Your task to perform on an android device: open chrome privacy settings Image 0: 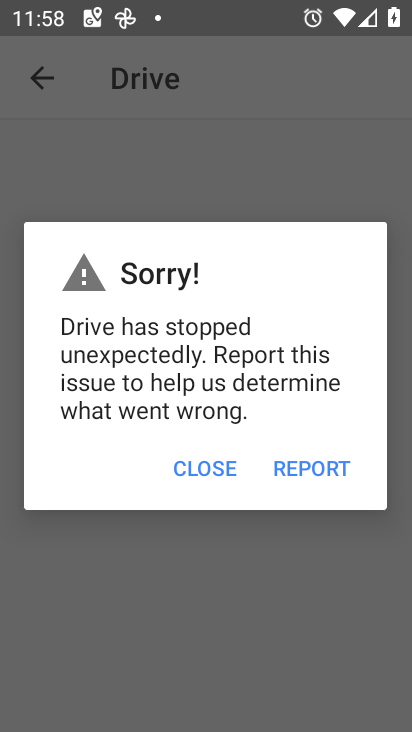
Step 0: press home button
Your task to perform on an android device: open chrome privacy settings Image 1: 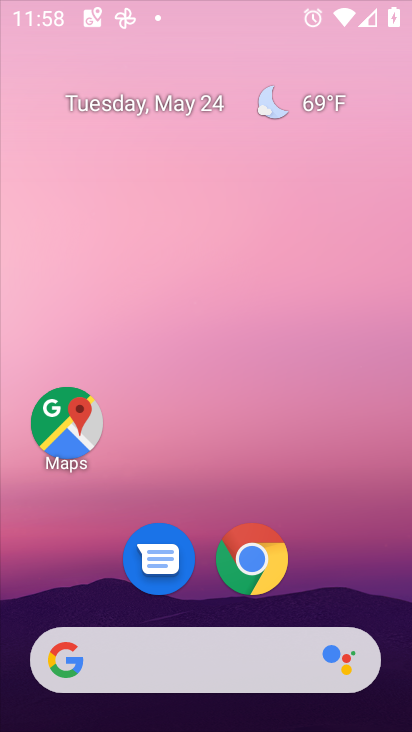
Step 1: drag from (393, 658) to (274, 189)
Your task to perform on an android device: open chrome privacy settings Image 2: 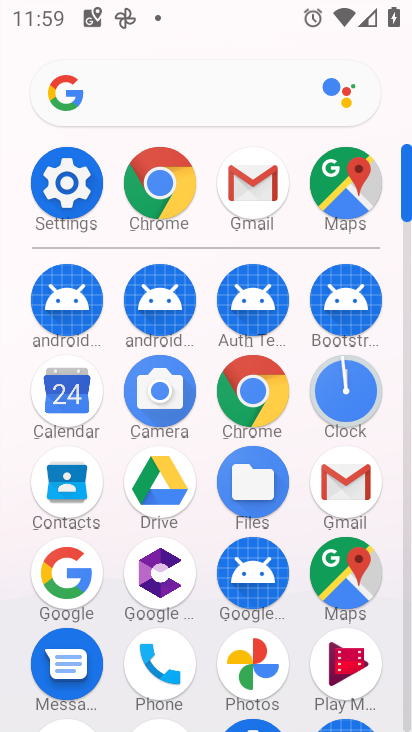
Step 2: click (250, 399)
Your task to perform on an android device: open chrome privacy settings Image 3: 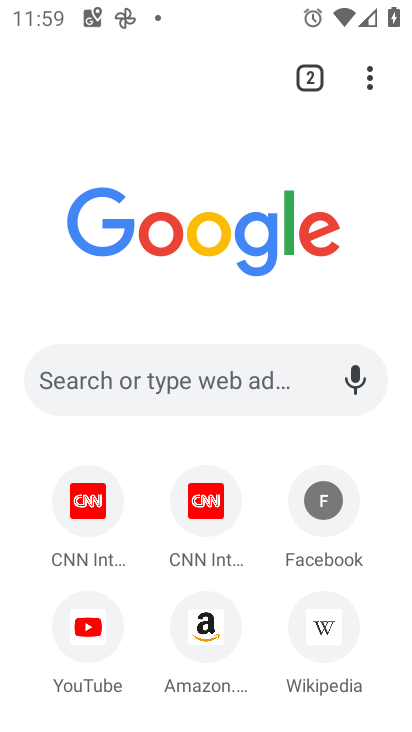
Step 3: click (374, 63)
Your task to perform on an android device: open chrome privacy settings Image 4: 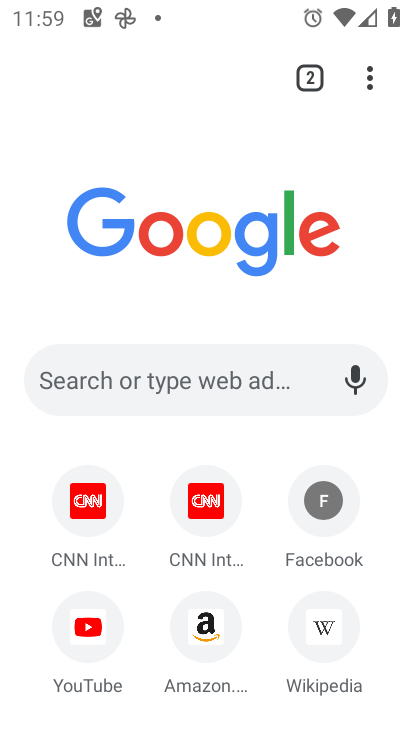
Step 4: click (373, 66)
Your task to perform on an android device: open chrome privacy settings Image 5: 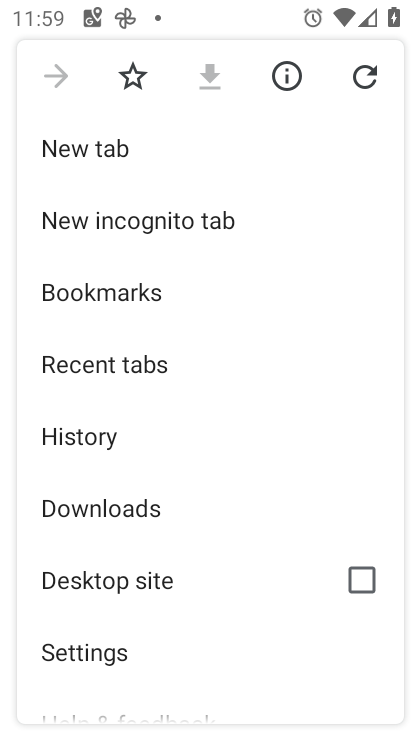
Step 5: drag from (145, 676) to (198, 254)
Your task to perform on an android device: open chrome privacy settings Image 6: 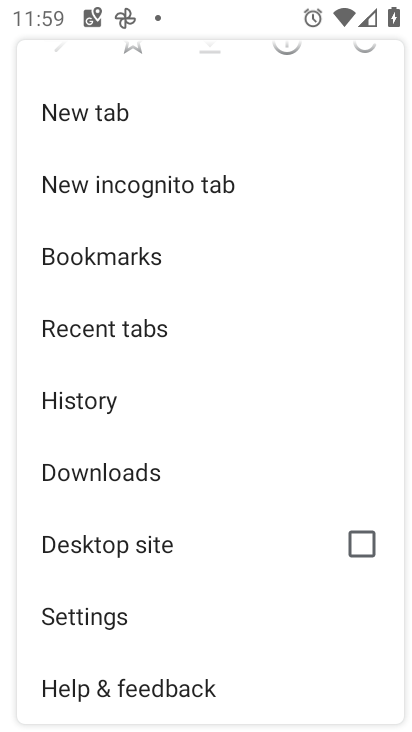
Step 6: click (118, 609)
Your task to perform on an android device: open chrome privacy settings Image 7: 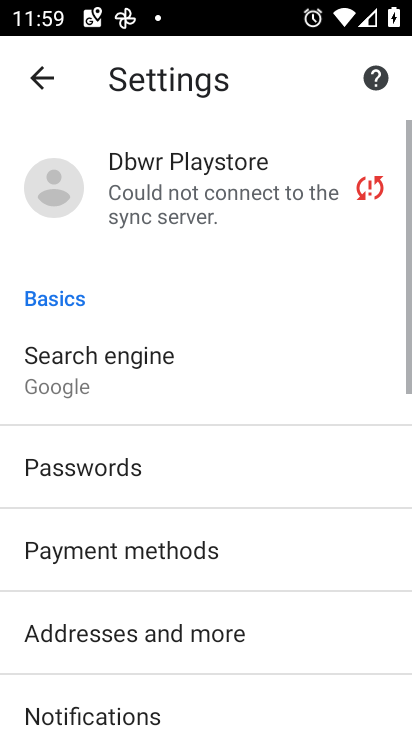
Step 7: drag from (143, 631) to (188, 177)
Your task to perform on an android device: open chrome privacy settings Image 8: 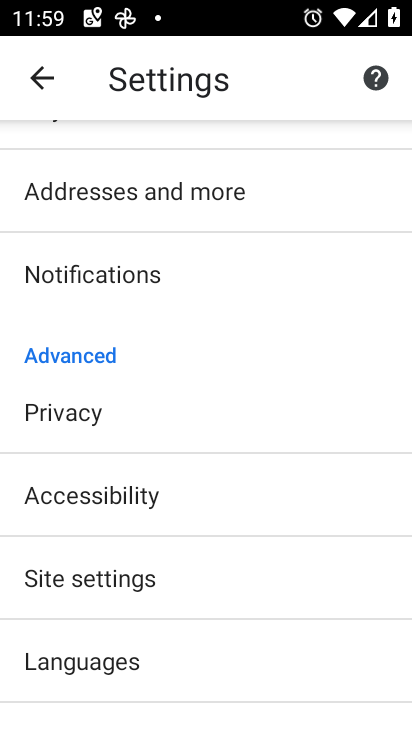
Step 8: click (110, 411)
Your task to perform on an android device: open chrome privacy settings Image 9: 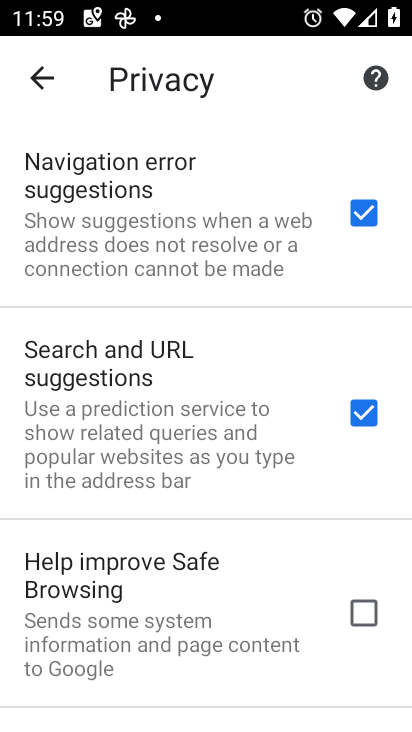
Step 9: task complete